Your task to perform on an android device: change alarm snooze length Image 0: 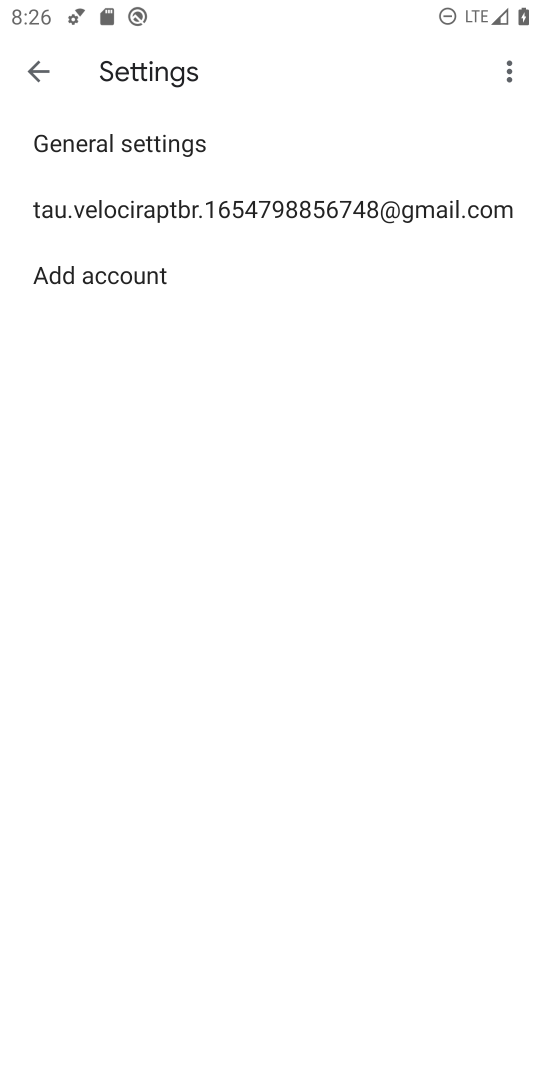
Step 0: press home button
Your task to perform on an android device: change alarm snooze length Image 1: 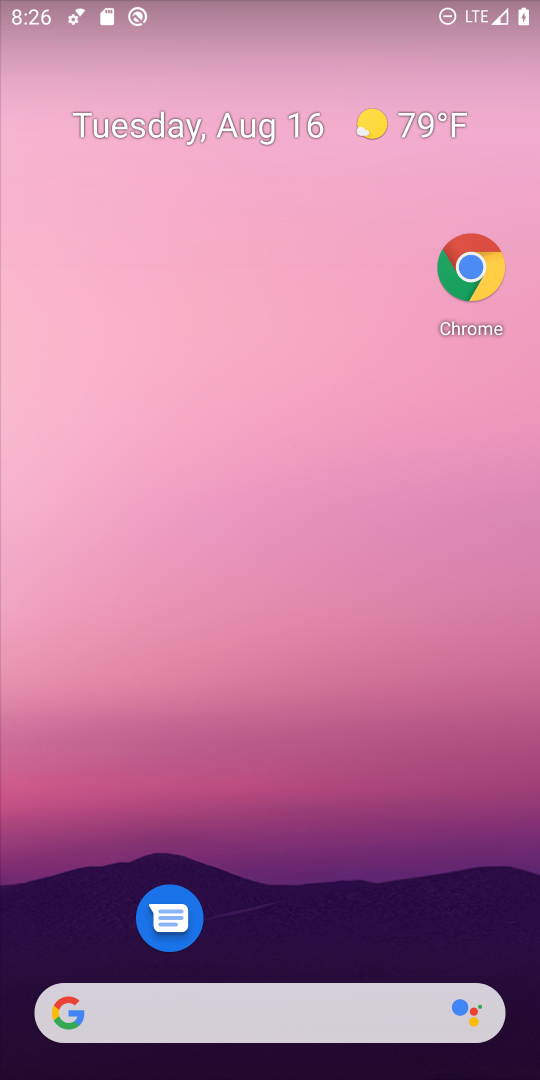
Step 1: drag from (283, 964) to (235, 71)
Your task to perform on an android device: change alarm snooze length Image 2: 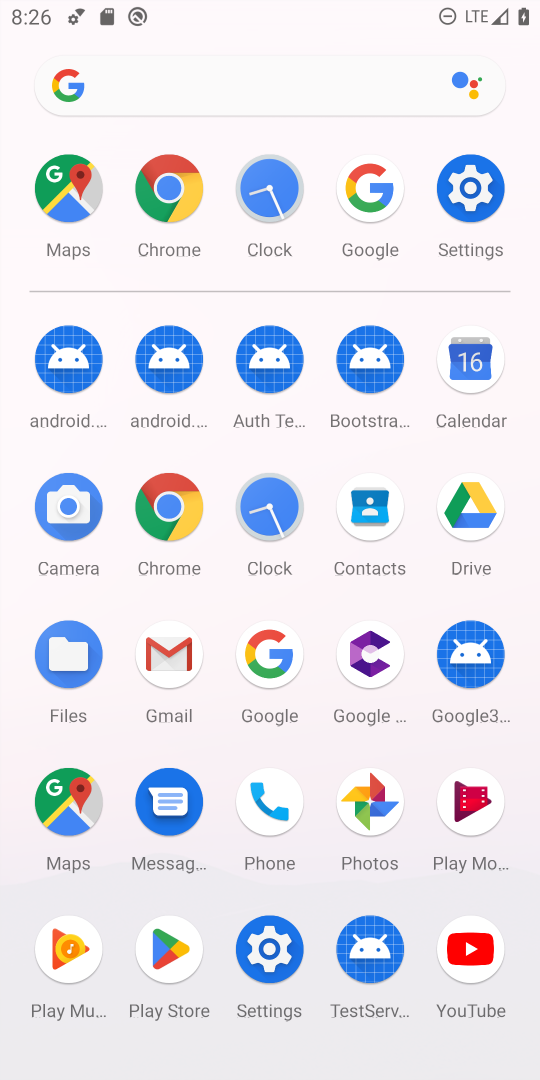
Step 2: click (284, 537)
Your task to perform on an android device: change alarm snooze length Image 3: 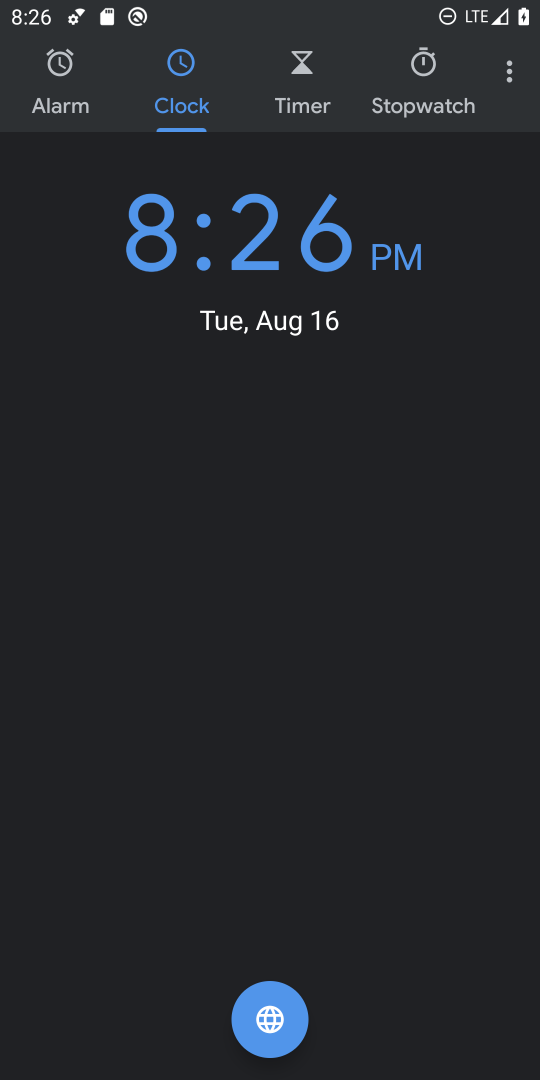
Step 3: click (508, 87)
Your task to perform on an android device: change alarm snooze length Image 4: 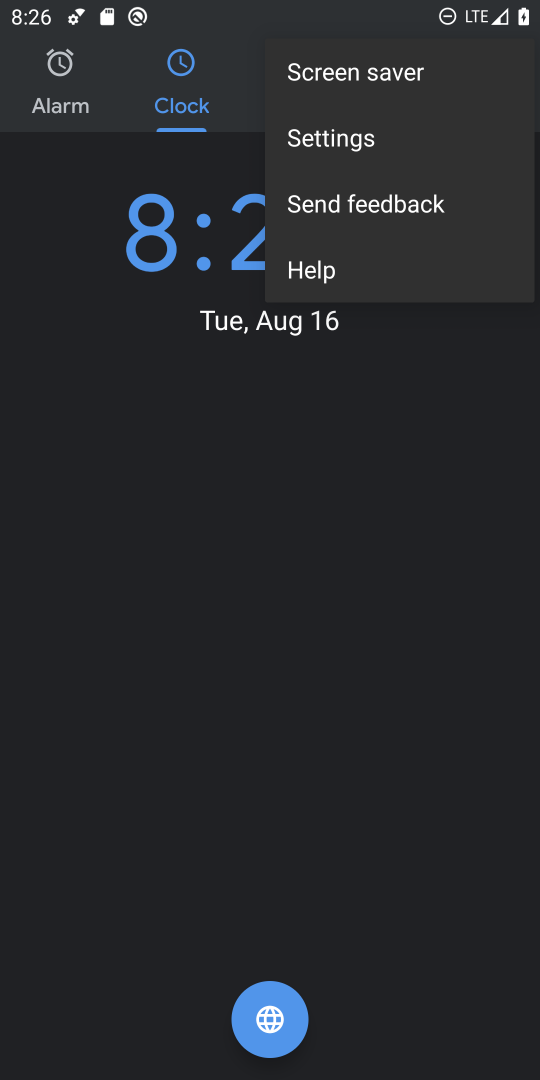
Step 4: click (419, 142)
Your task to perform on an android device: change alarm snooze length Image 5: 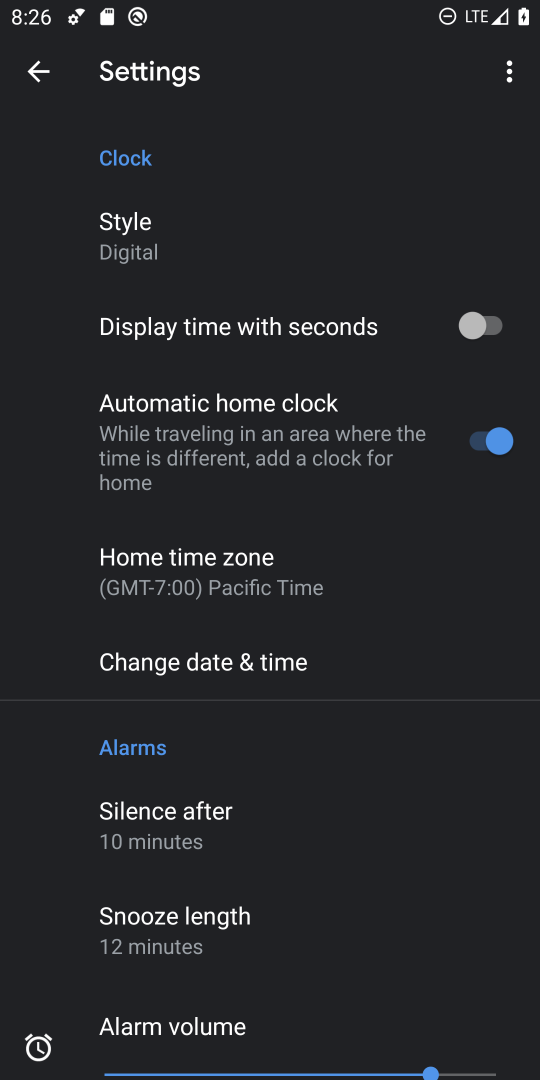
Step 5: click (190, 950)
Your task to perform on an android device: change alarm snooze length Image 6: 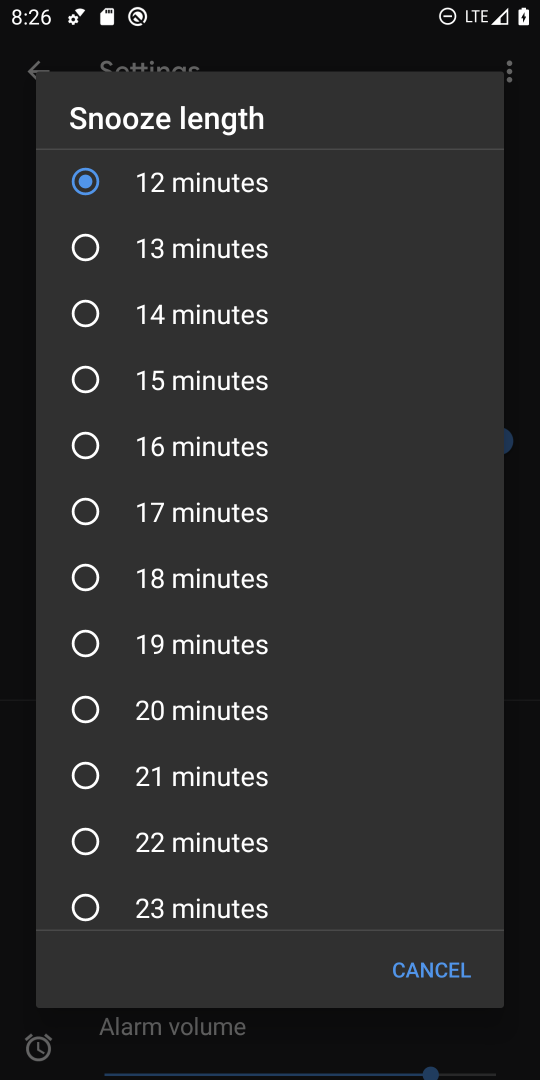
Step 6: click (102, 310)
Your task to perform on an android device: change alarm snooze length Image 7: 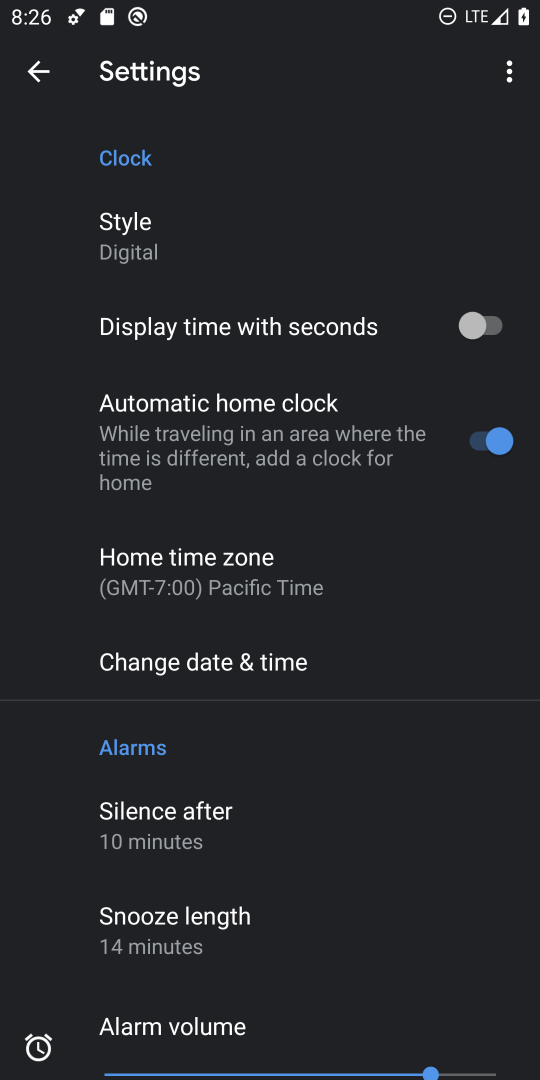
Step 7: task complete